Your task to perform on an android device: Open the map Image 0: 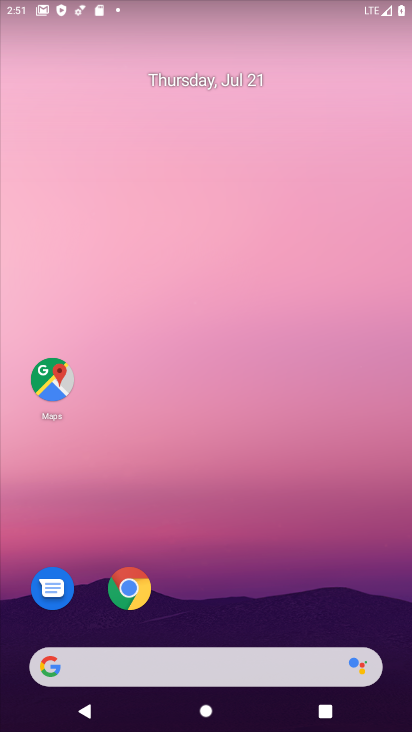
Step 0: click (39, 368)
Your task to perform on an android device: Open the map Image 1: 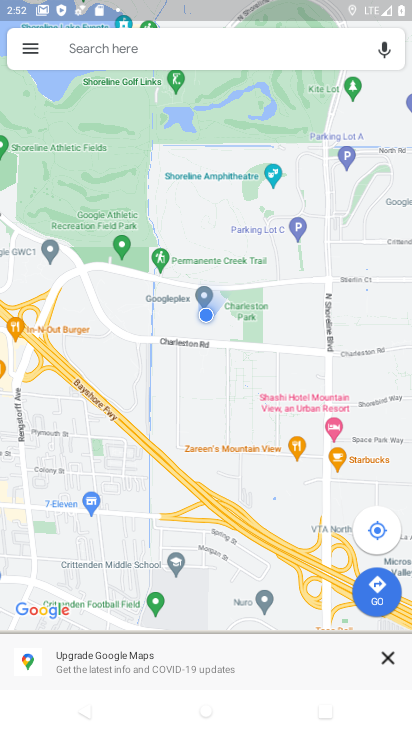
Step 1: task complete